Your task to perform on an android device: Show me popular videos on Youtube Image 0: 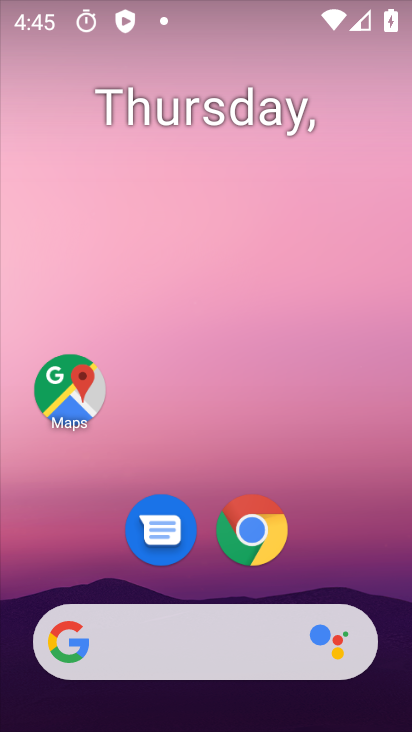
Step 0: drag from (243, 555) to (330, 1)
Your task to perform on an android device: Show me popular videos on Youtube Image 1: 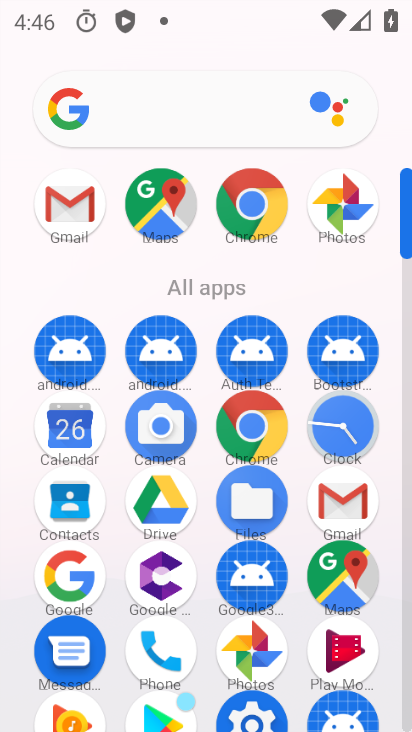
Step 1: drag from (311, 634) to (373, 1)
Your task to perform on an android device: Show me popular videos on Youtube Image 2: 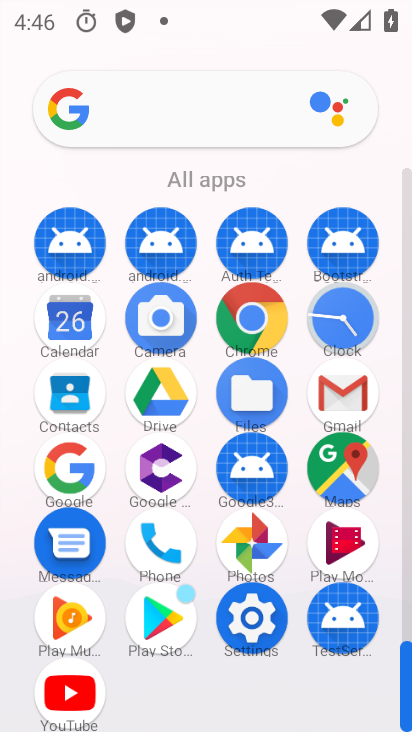
Step 2: click (65, 698)
Your task to perform on an android device: Show me popular videos on Youtube Image 3: 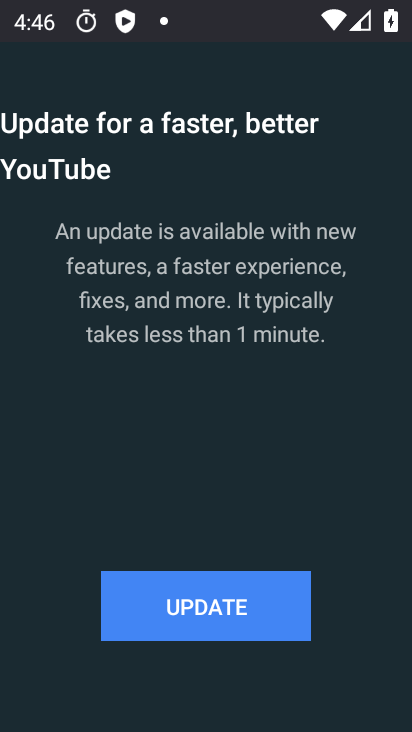
Step 3: click (265, 605)
Your task to perform on an android device: Show me popular videos on Youtube Image 4: 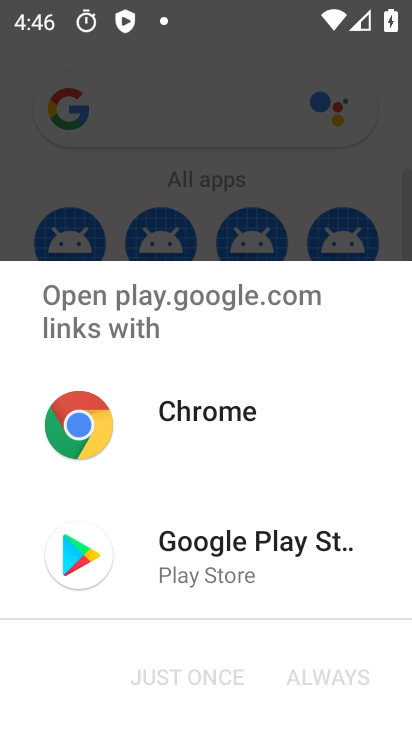
Step 4: click (251, 552)
Your task to perform on an android device: Show me popular videos on Youtube Image 5: 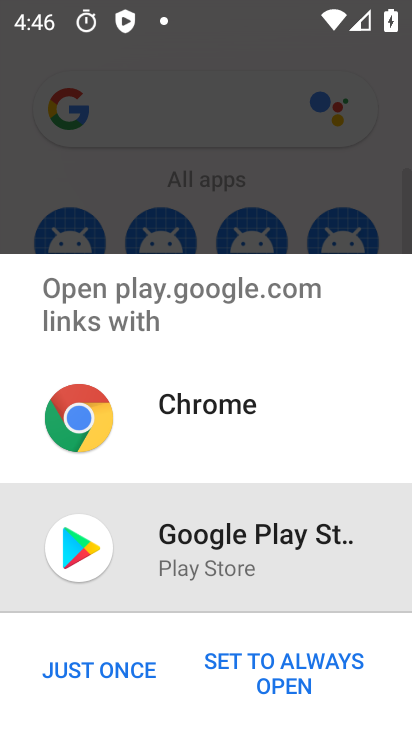
Step 5: click (131, 668)
Your task to perform on an android device: Show me popular videos on Youtube Image 6: 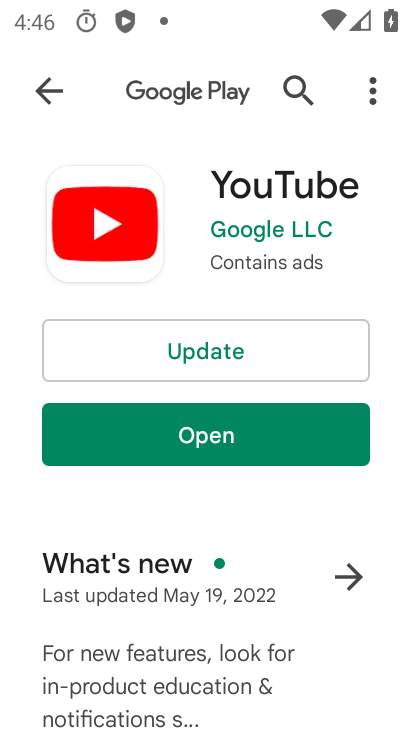
Step 6: click (267, 328)
Your task to perform on an android device: Show me popular videos on Youtube Image 7: 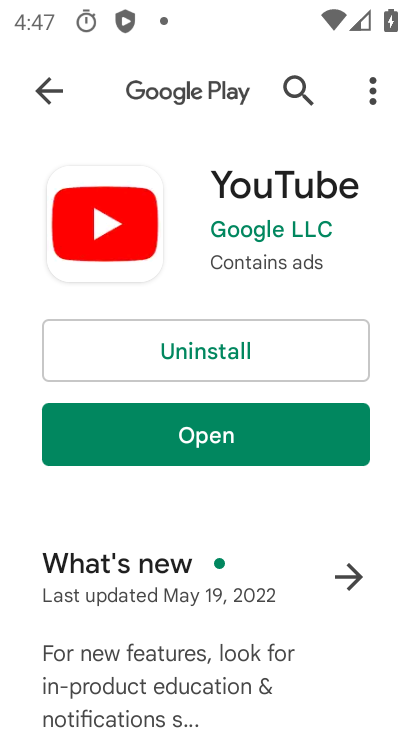
Step 7: click (310, 426)
Your task to perform on an android device: Show me popular videos on Youtube Image 8: 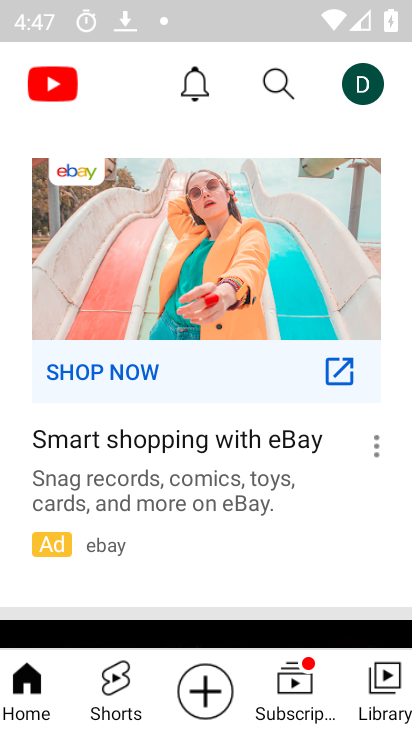
Step 8: task complete